Your task to perform on an android device: open chrome privacy settings Image 0: 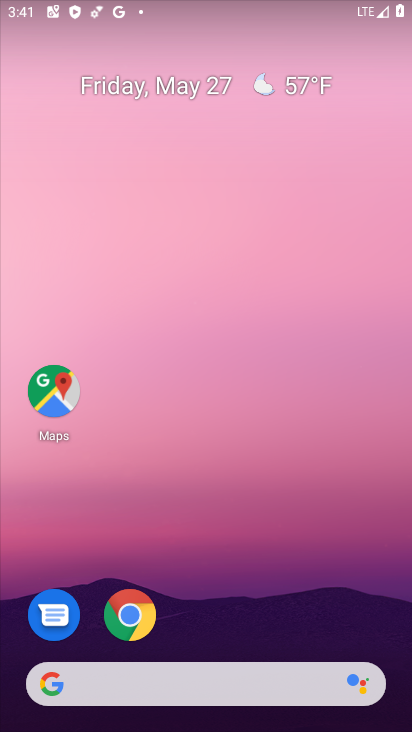
Step 0: click (121, 612)
Your task to perform on an android device: open chrome privacy settings Image 1: 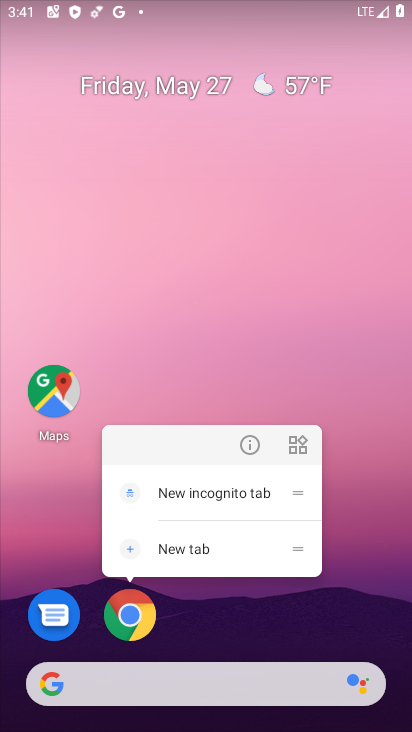
Step 1: click (131, 620)
Your task to perform on an android device: open chrome privacy settings Image 2: 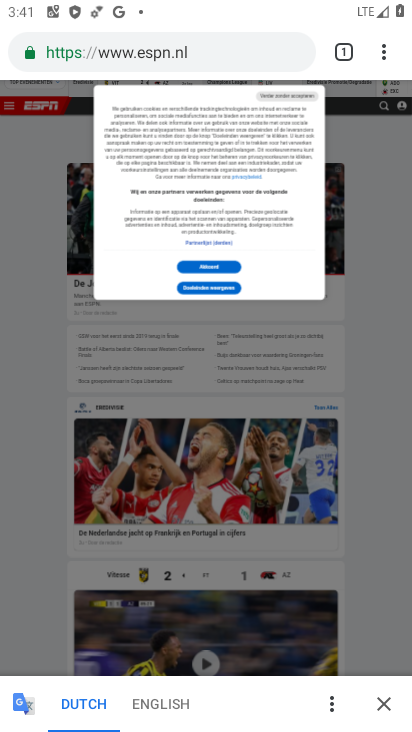
Step 2: click (381, 50)
Your task to perform on an android device: open chrome privacy settings Image 3: 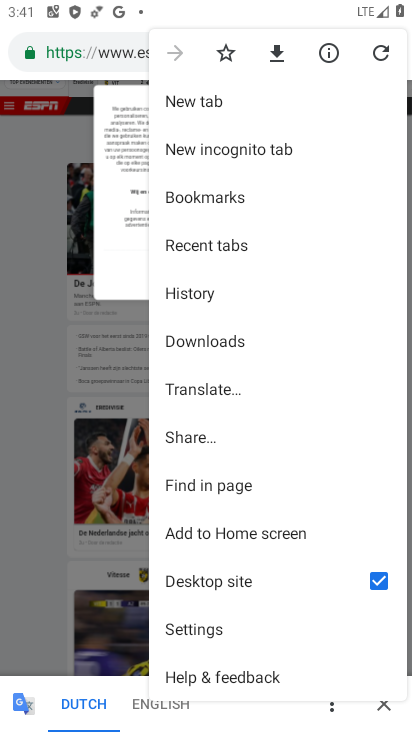
Step 3: click (222, 629)
Your task to perform on an android device: open chrome privacy settings Image 4: 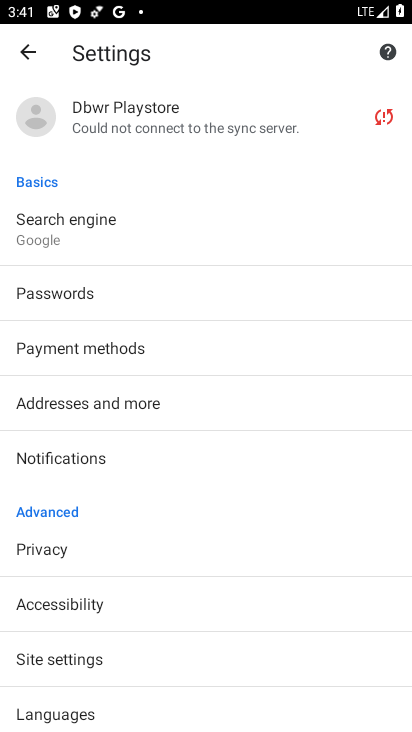
Step 4: click (67, 564)
Your task to perform on an android device: open chrome privacy settings Image 5: 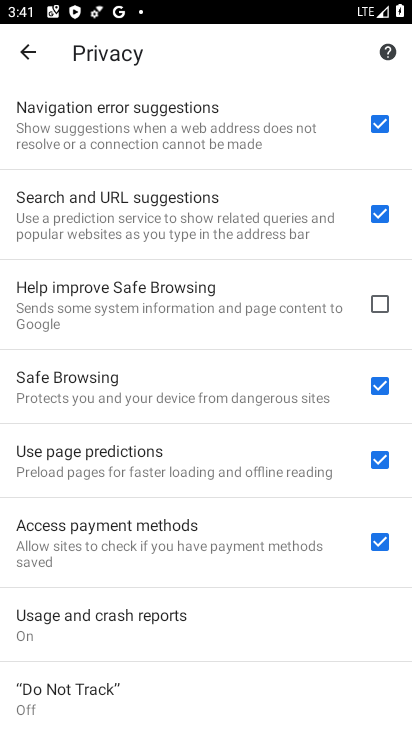
Step 5: task complete